Your task to perform on an android device: toggle translation in the chrome app Image 0: 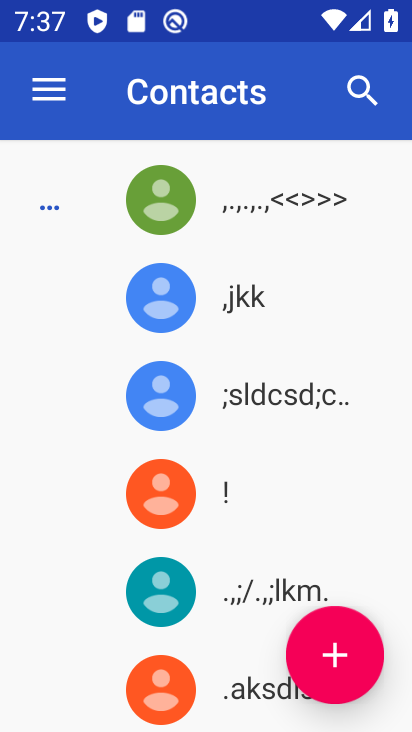
Step 0: press home button
Your task to perform on an android device: toggle translation in the chrome app Image 1: 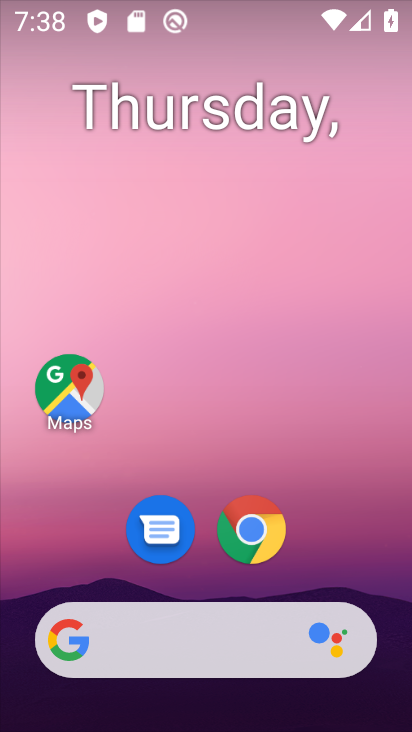
Step 1: click (235, 530)
Your task to perform on an android device: toggle translation in the chrome app Image 2: 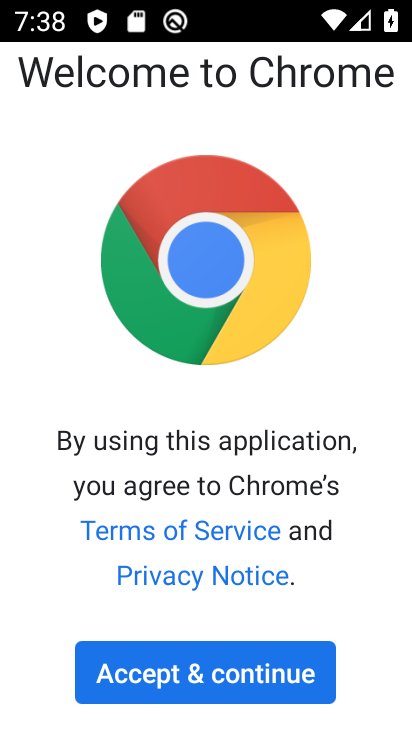
Step 2: click (235, 691)
Your task to perform on an android device: toggle translation in the chrome app Image 3: 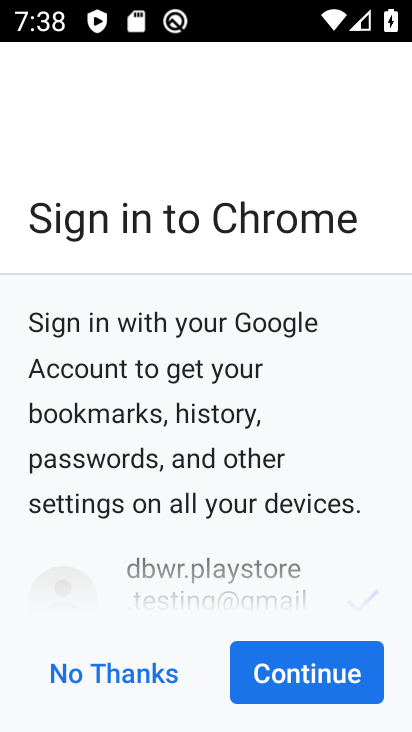
Step 3: click (345, 681)
Your task to perform on an android device: toggle translation in the chrome app Image 4: 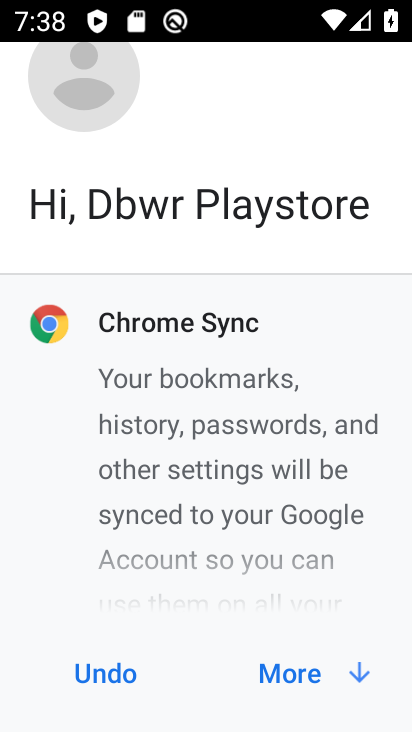
Step 4: click (318, 670)
Your task to perform on an android device: toggle translation in the chrome app Image 5: 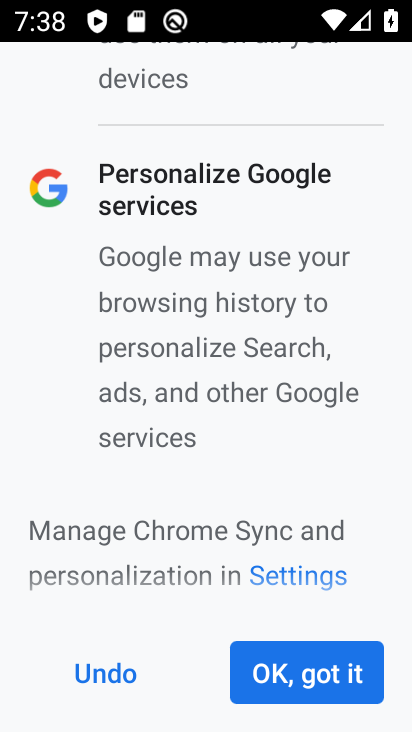
Step 5: click (318, 670)
Your task to perform on an android device: toggle translation in the chrome app Image 6: 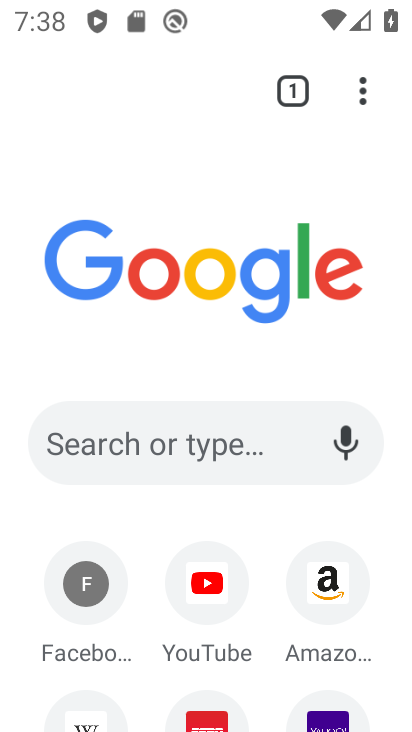
Step 6: click (378, 78)
Your task to perform on an android device: toggle translation in the chrome app Image 7: 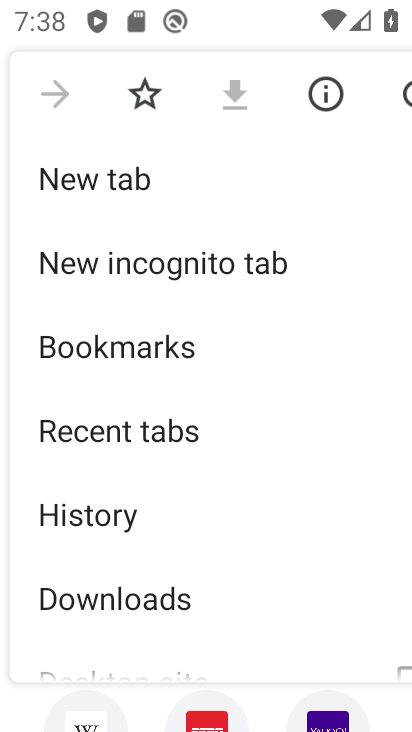
Step 7: drag from (187, 606) to (224, 195)
Your task to perform on an android device: toggle translation in the chrome app Image 8: 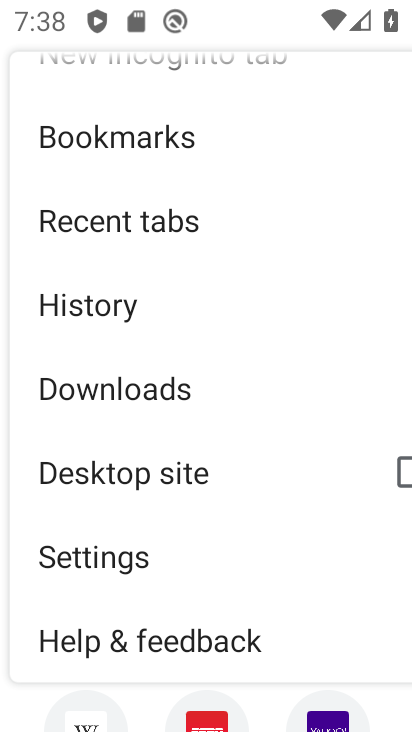
Step 8: click (139, 566)
Your task to perform on an android device: toggle translation in the chrome app Image 9: 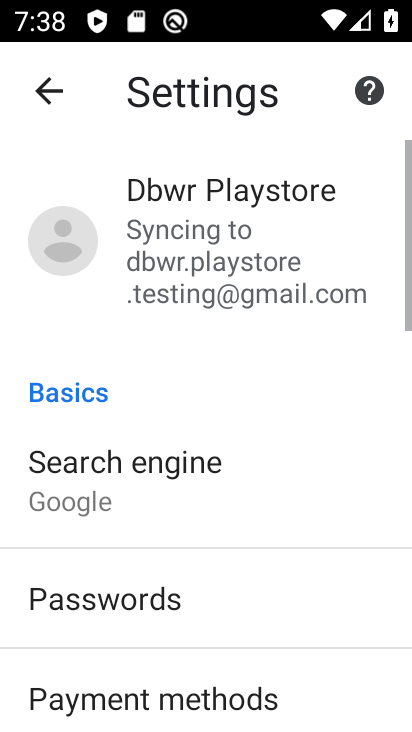
Step 9: drag from (139, 566) to (183, 218)
Your task to perform on an android device: toggle translation in the chrome app Image 10: 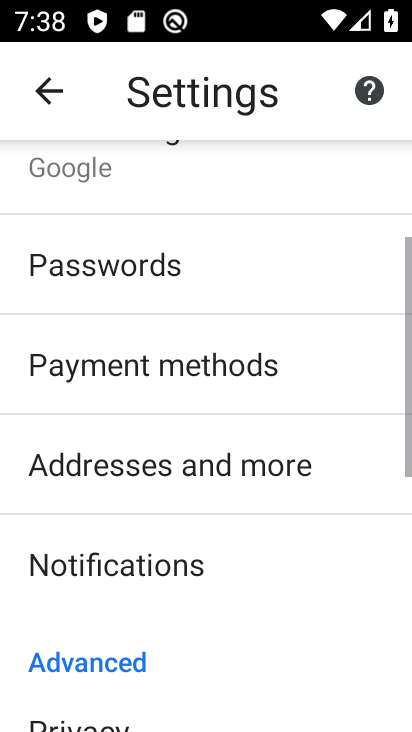
Step 10: drag from (175, 588) to (184, 210)
Your task to perform on an android device: toggle translation in the chrome app Image 11: 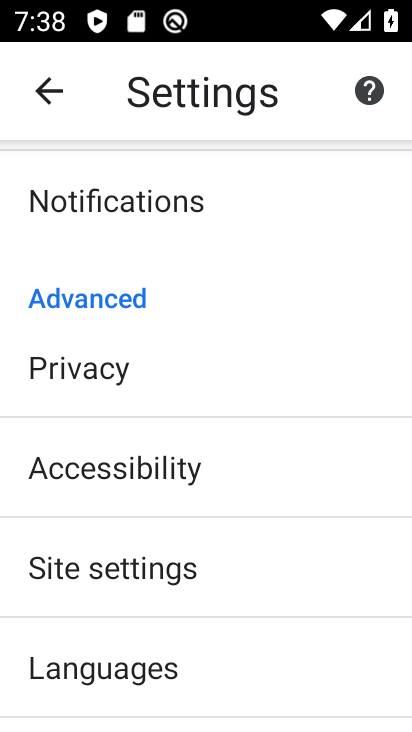
Step 11: click (172, 645)
Your task to perform on an android device: toggle translation in the chrome app Image 12: 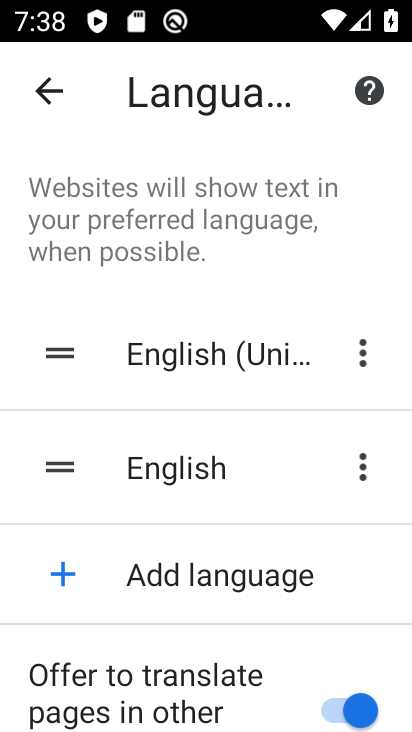
Step 12: click (367, 712)
Your task to perform on an android device: toggle translation in the chrome app Image 13: 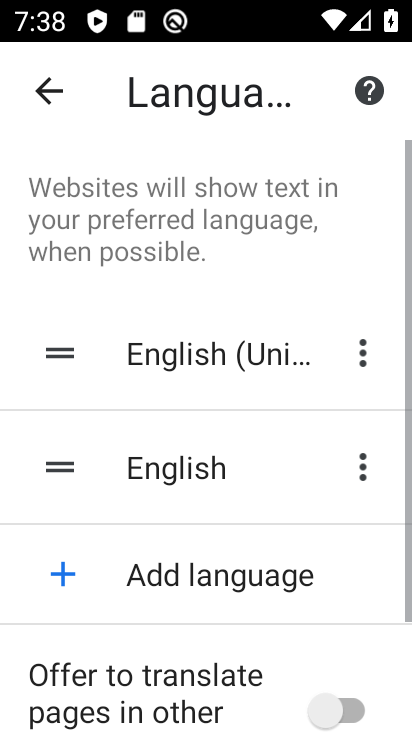
Step 13: click (367, 712)
Your task to perform on an android device: toggle translation in the chrome app Image 14: 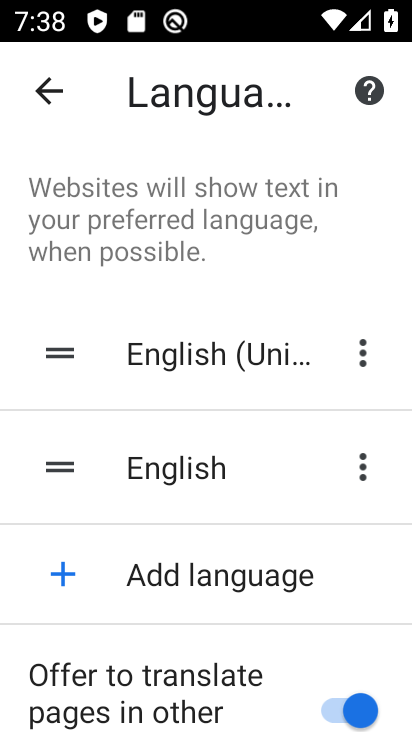
Step 14: task complete